Your task to perform on an android device: snooze an email in the gmail app Image 0: 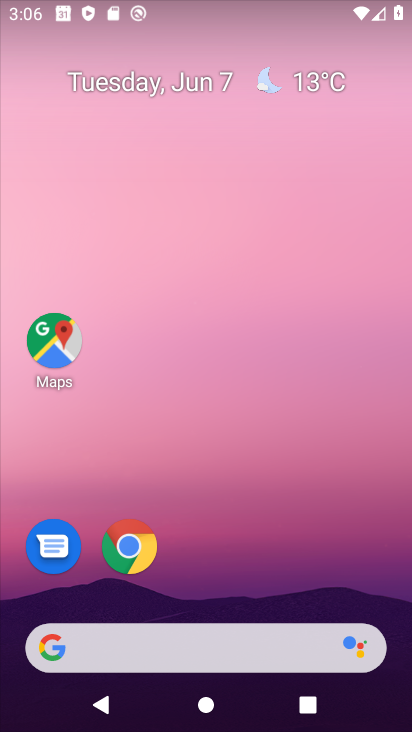
Step 0: drag from (197, 615) to (314, 220)
Your task to perform on an android device: snooze an email in the gmail app Image 1: 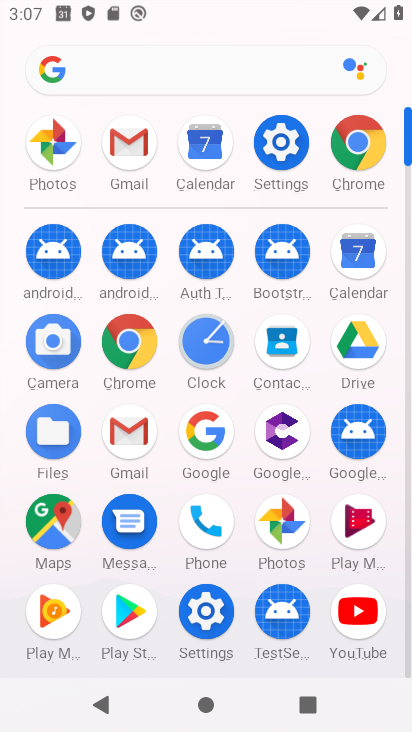
Step 1: click (138, 431)
Your task to perform on an android device: snooze an email in the gmail app Image 2: 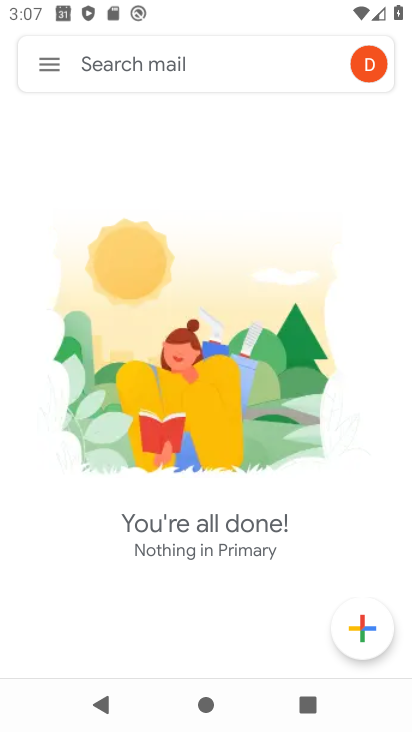
Step 2: click (38, 73)
Your task to perform on an android device: snooze an email in the gmail app Image 3: 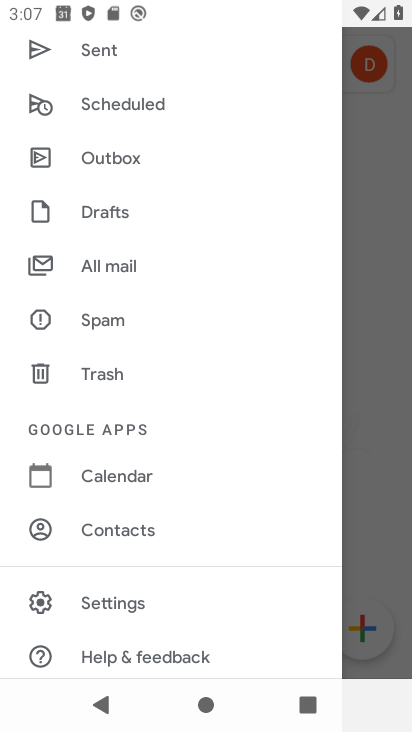
Step 3: click (131, 275)
Your task to perform on an android device: snooze an email in the gmail app Image 4: 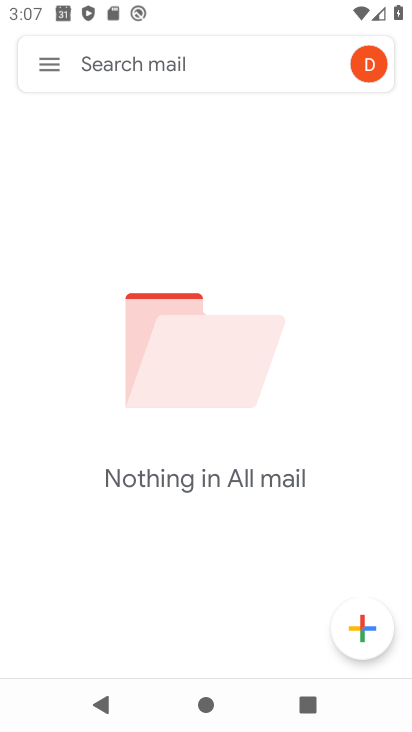
Step 4: task complete